Your task to perform on an android device: Open the map Image 0: 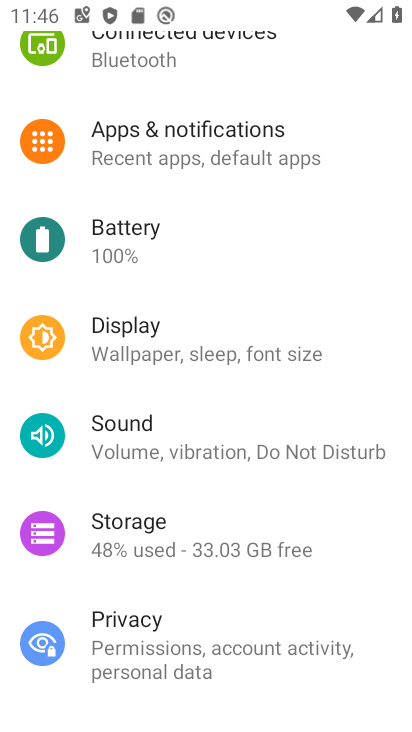
Step 0: press home button
Your task to perform on an android device: Open the map Image 1: 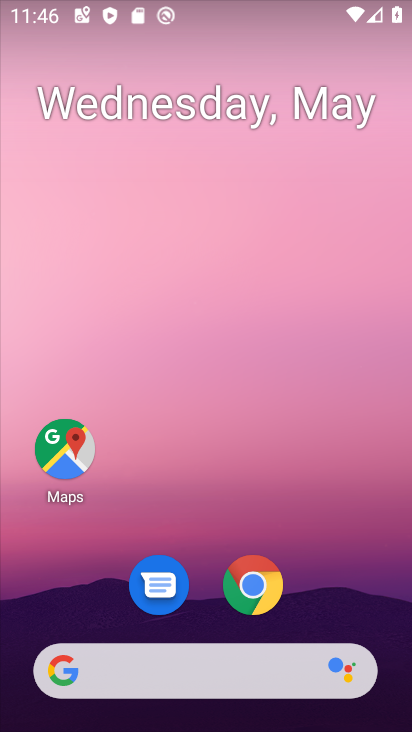
Step 1: click (57, 459)
Your task to perform on an android device: Open the map Image 2: 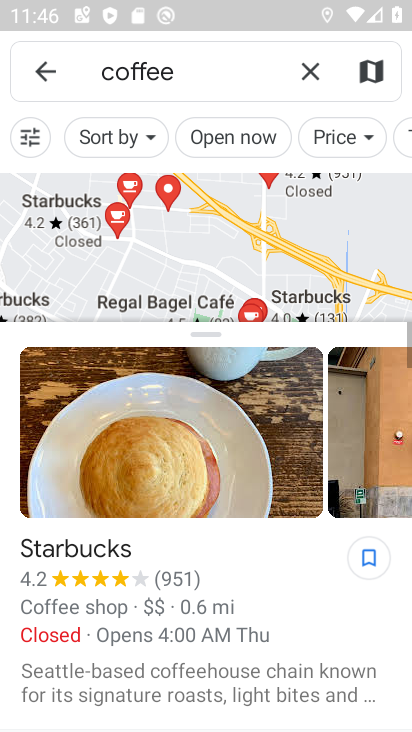
Step 2: click (308, 61)
Your task to perform on an android device: Open the map Image 3: 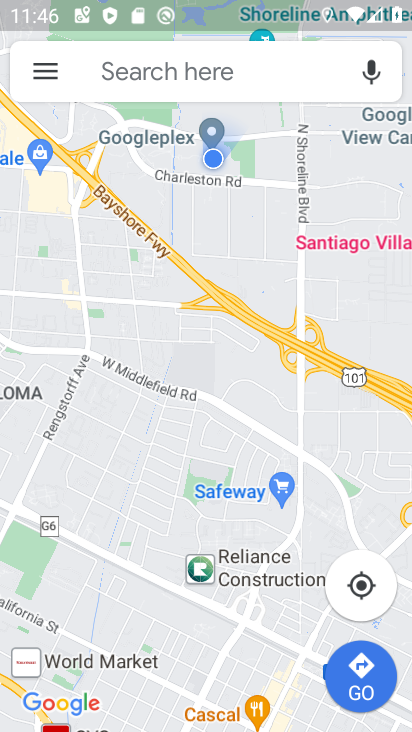
Step 3: task complete